Your task to perform on an android device: change keyboard looks Image 0: 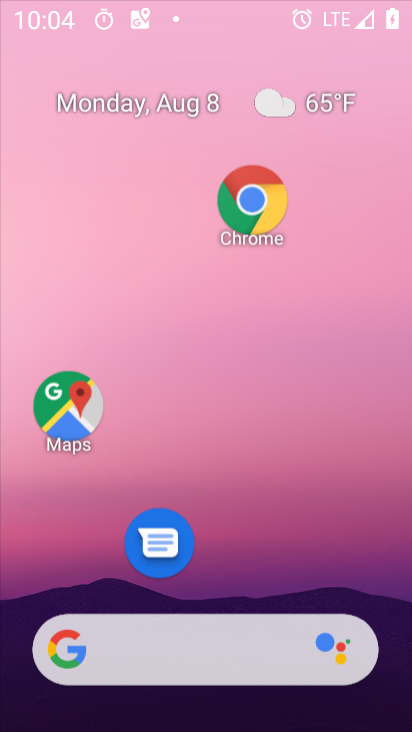
Step 0: press home button
Your task to perform on an android device: change keyboard looks Image 1: 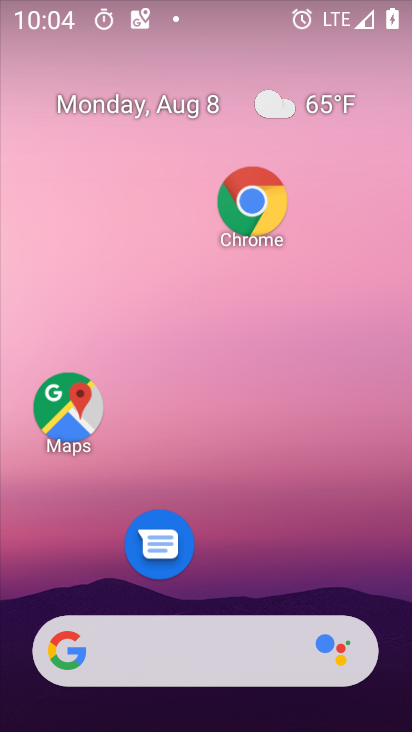
Step 1: drag from (216, 587) to (220, 43)
Your task to perform on an android device: change keyboard looks Image 2: 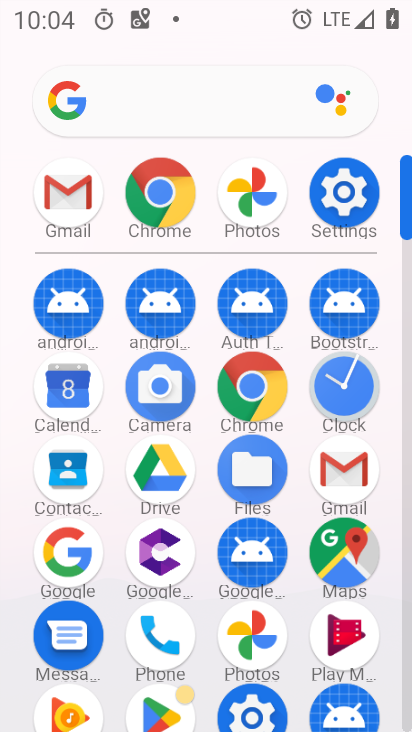
Step 2: click (342, 185)
Your task to perform on an android device: change keyboard looks Image 3: 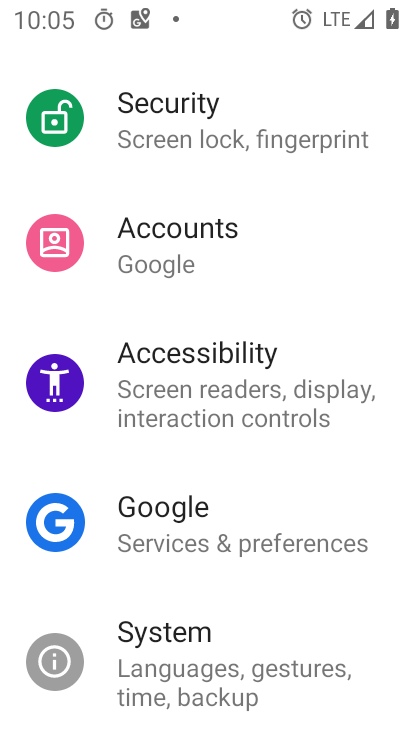
Step 3: click (246, 653)
Your task to perform on an android device: change keyboard looks Image 4: 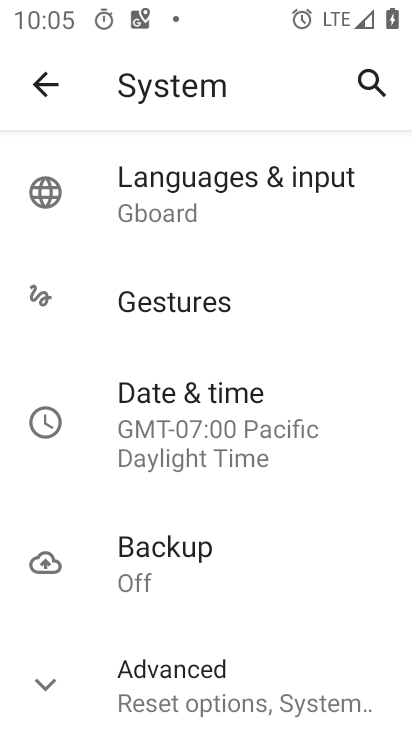
Step 4: click (88, 195)
Your task to perform on an android device: change keyboard looks Image 5: 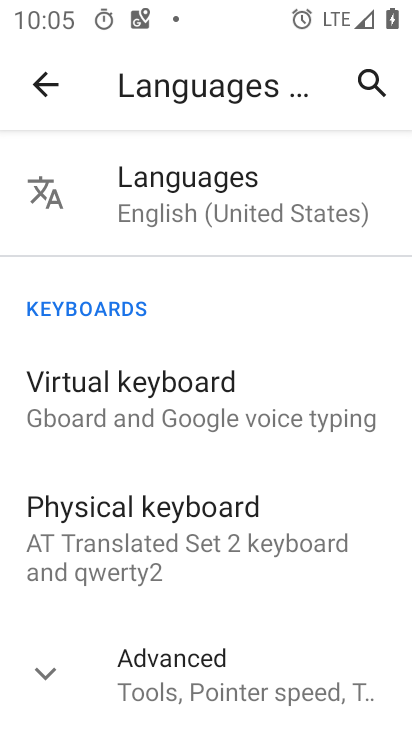
Step 5: click (129, 393)
Your task to perform on an android device: change keyboard looks Image 6: 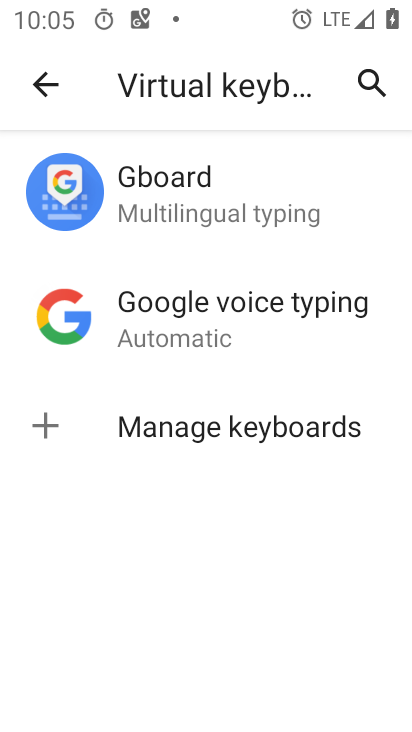
Step 6: click (198, 185)
Your task to perform on an android device: change keyboard looks Image 7: 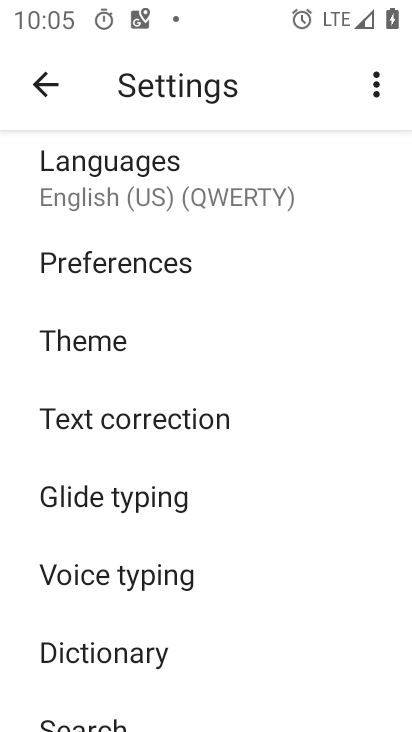
Step 7: click (134, 334)
Your task to perform on an android device: change keyboard looks Image 8: 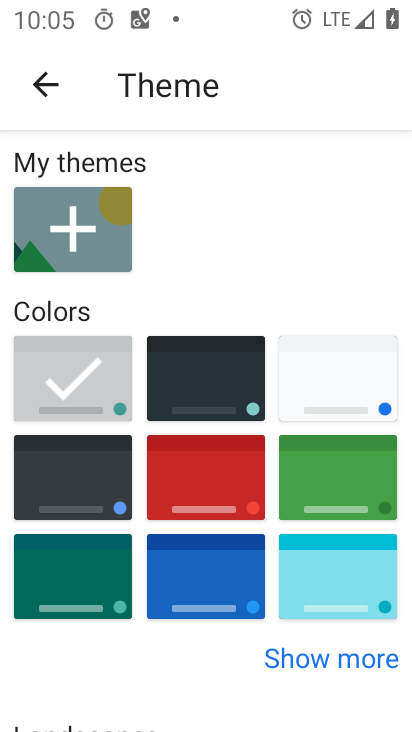
Step 8: click (334, 472)
Your task to perform on an android device: change keyboard looks Image 9: 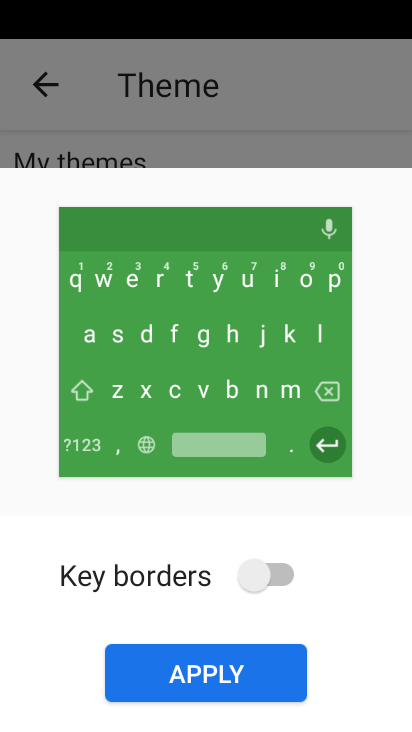
Step 9: click (215, 668)
Your task to perform on an android device: change keyboard looks Image 10: 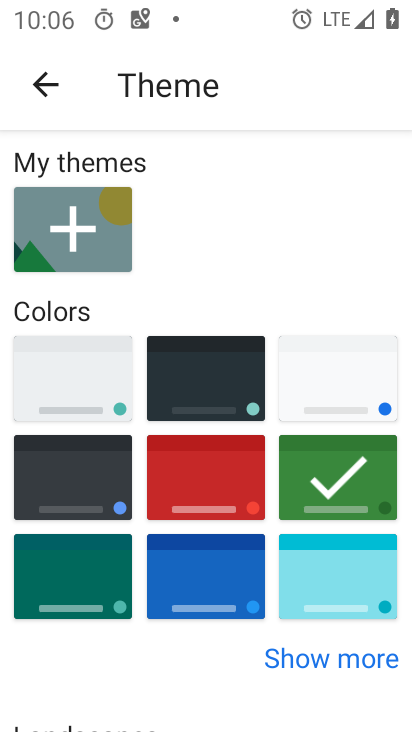
Step 10: task complete